Your task to perform on an android device: turn on sleep mode Image 0: 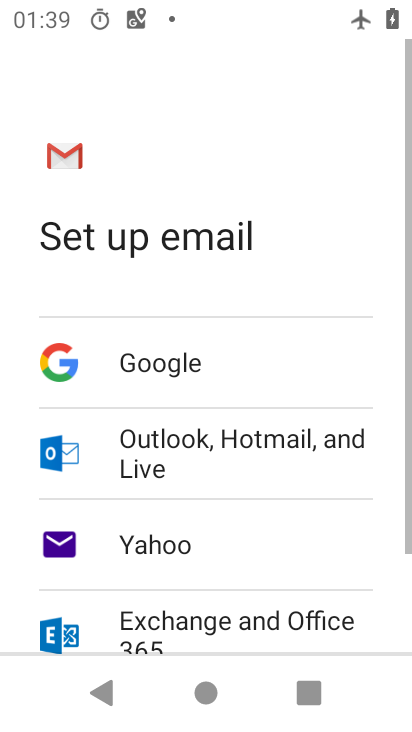
Step 0: press home button
Your task to perform on an android device: turn on sleep mode Image 1: 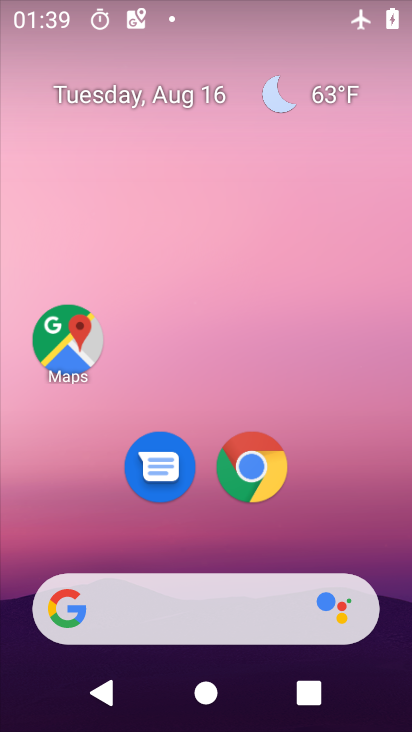
Step 1: drag from (346, 528) to (409, 233)
Your task to perform on an android device: turn on sleep mode Image 2: 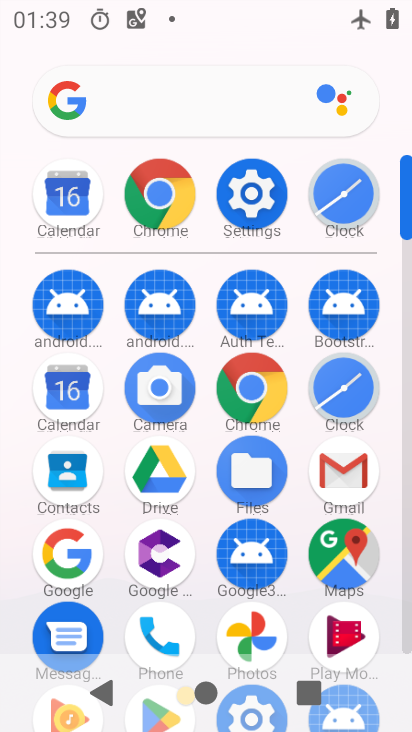
Step 2: click (245, 190)
Your task to perform on an android device: turn on sleep mode Image 3: 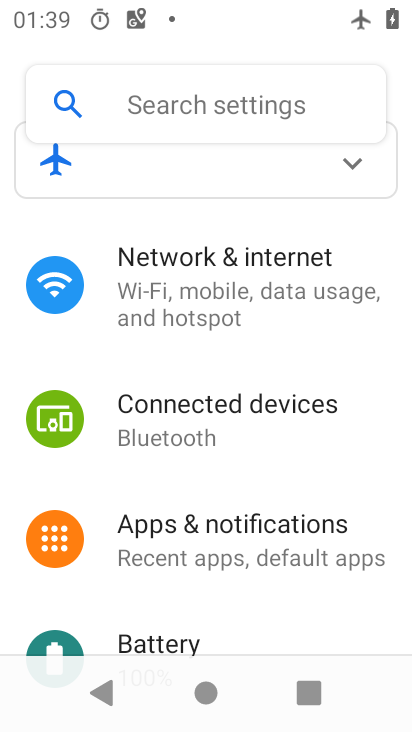
Step 3: drag from (369, 489) to (372, 375)
Your task to perform on an android device: turn on sleep mode Image 4: 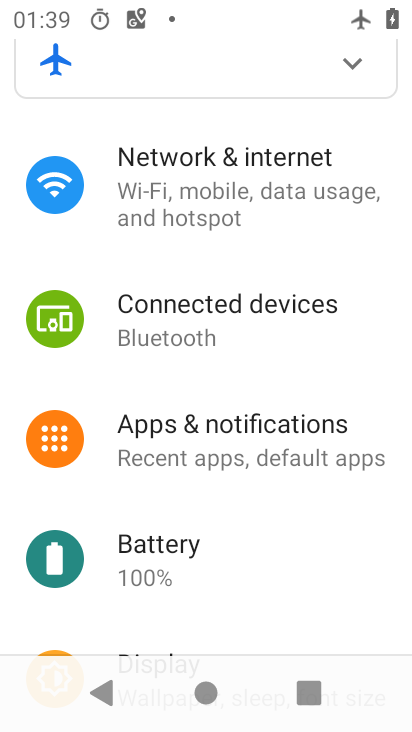
Step 4: drag from (373, 500) to (381, 376)
Your task to perform on an android device: turn on sleep mode Image 5: 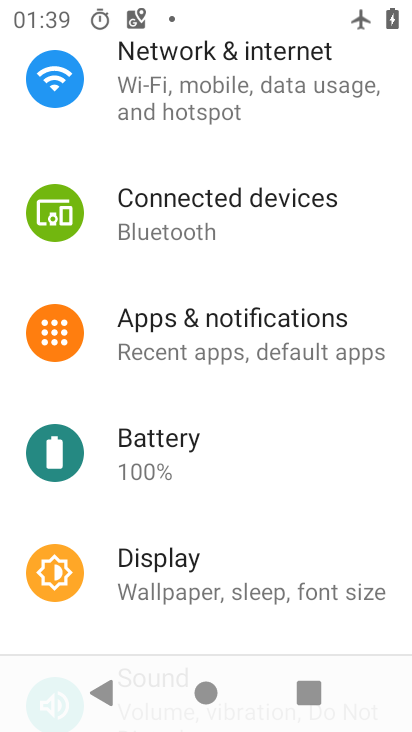
Step 5: drag from (328, 511) to (340, 377)
Your task to perform on an android device: turn on sleep mode Image 6: 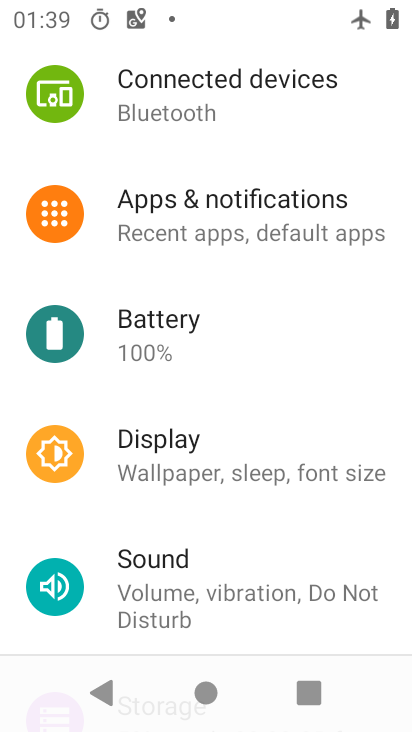
Step 6: drag from (328, 515) to (325, 334)
Your task to perform on an android device: turn on sleep mode Image 7: 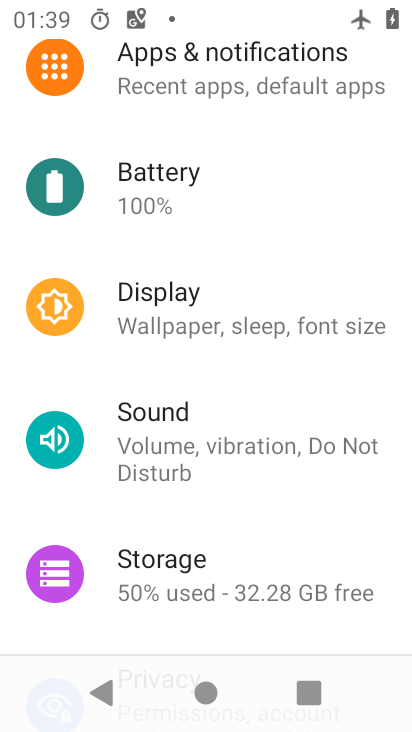
Step 7: drag from (286, 486) to (288, 310)
Your task to perform on an android device: turn on sleep mode Image 8: 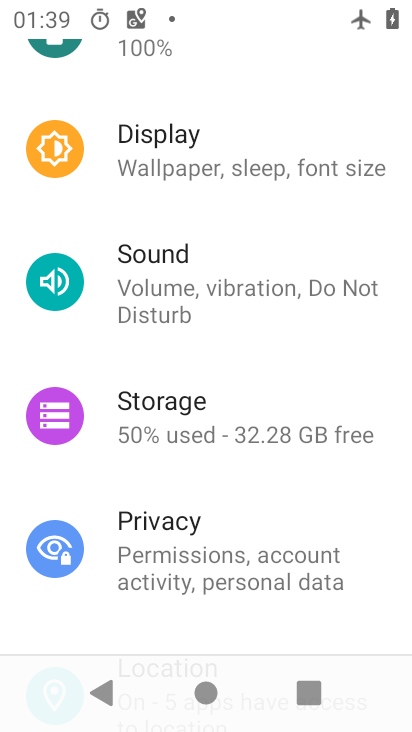
Step 8: click (341, 171)
Your task to perform on an android device: turn on sleep mode Image 9: 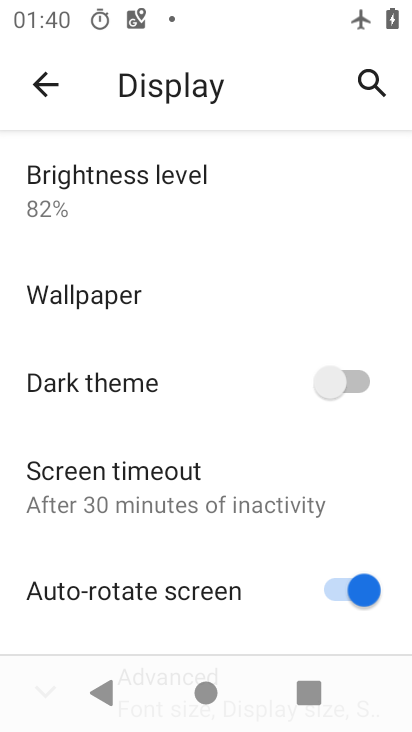
Step 9: drag from (267, 482) to (267, 339)
Your task to perform on an android device: turn on sleep mode Image 10: 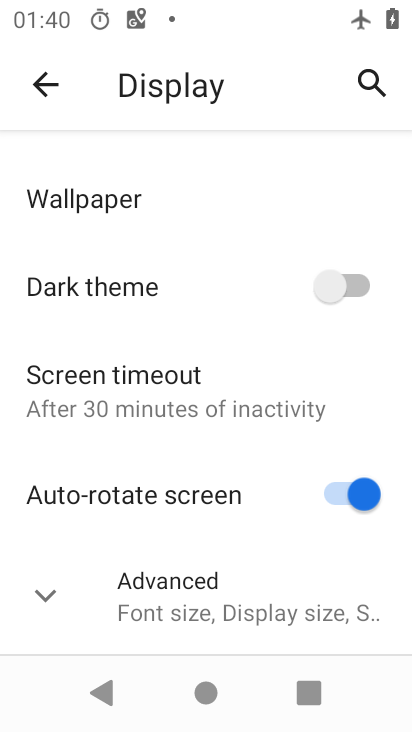
Step 10: drag from (268, 512) to (277, 362)
Your task to perform on an android device: turn on sleep mode Image 11: 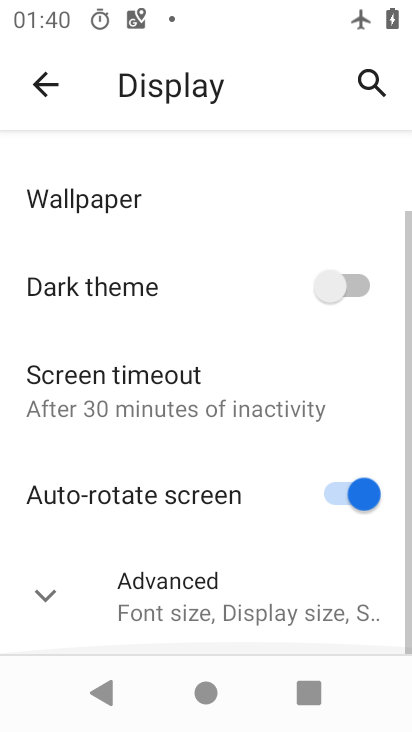
Step 11: click (241, 566)
Your task to perform on an android device: turn on sleep mode Image 12: 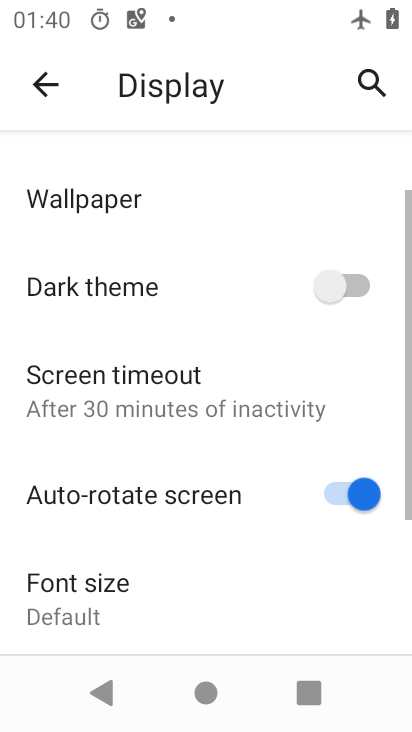
Step 12: task complete